Your task to perform on an android device: toggle show notifications on the lock screen Image 0: 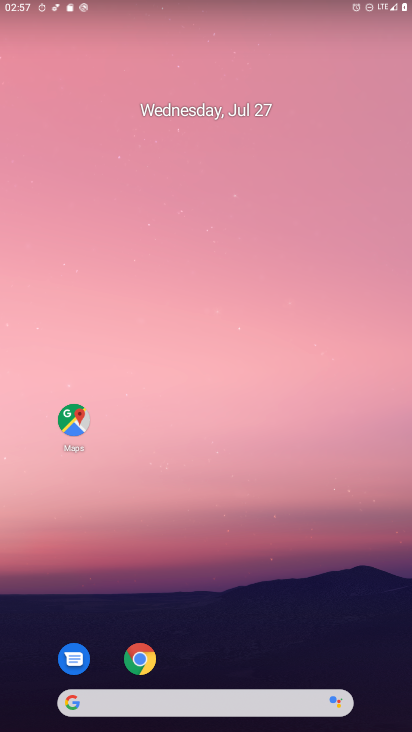
Step 0: click (280, 56)
Your task to perform on an android device: toggle show notifications on the lock screen Image 1: 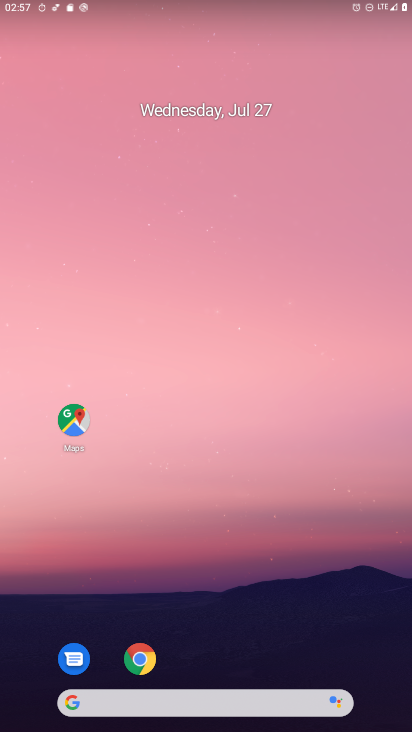
Step 1: drag from (325, 569) to (304, 33)
Your task to perform on an android device: toggle show notifications on the lock screen Image 2: 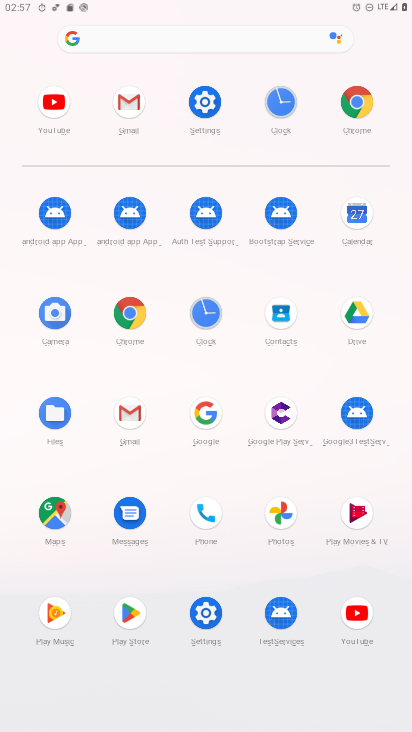
Step 2: click (204, 93)
Your task to perform on an android device: toggle show notifications on the lock screen Image 3: 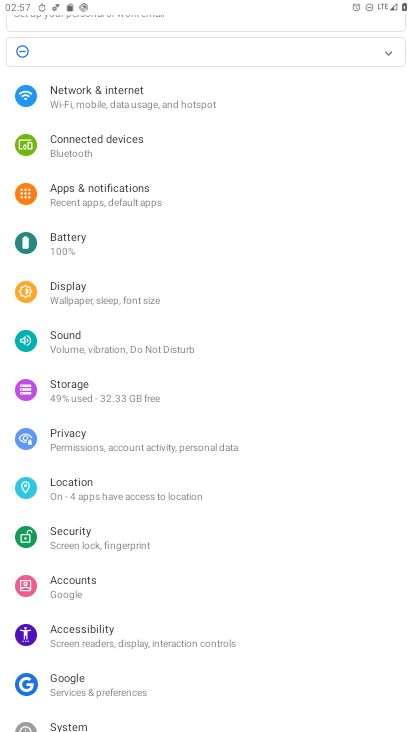
Step 3: click (130, 199)
Your task to perform on an android device: toggle show notifications on the lock screen Image 4: 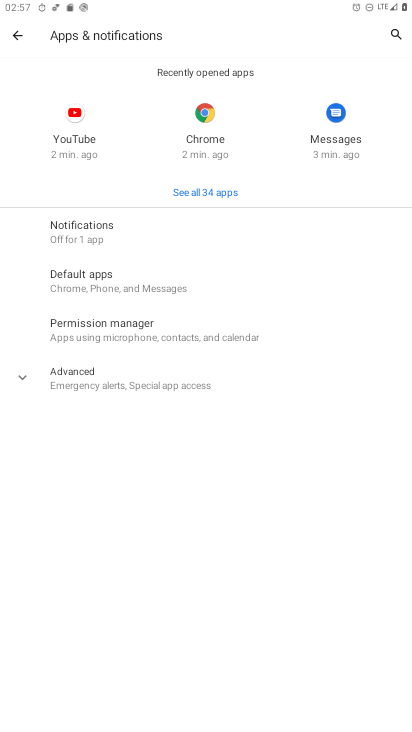
Step 4: click (98, 232)
Your task to perform on an android device: toggle show notifications on the lock screen Image 5: 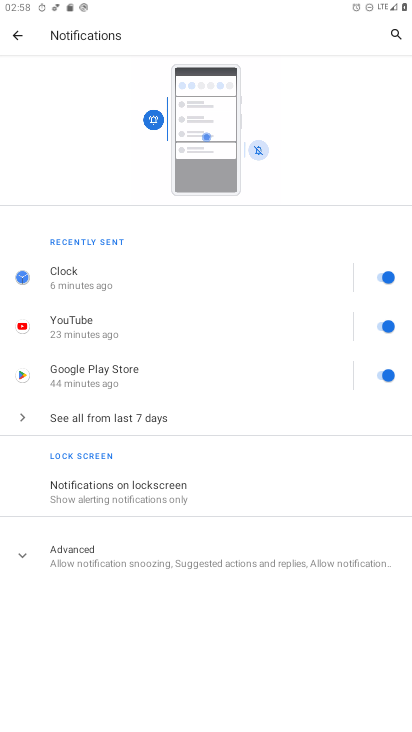
Step 5: click (149, 495)
Your task to perform on an android device: toggle show notifications on the lock screen Image 6: 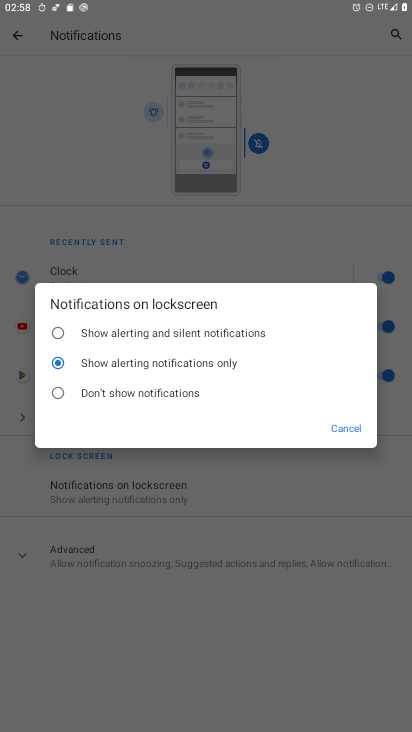
Step 6: click (155, 394)
Your task to perform on an android device: toggle show notifications on the lock screen Image 7: 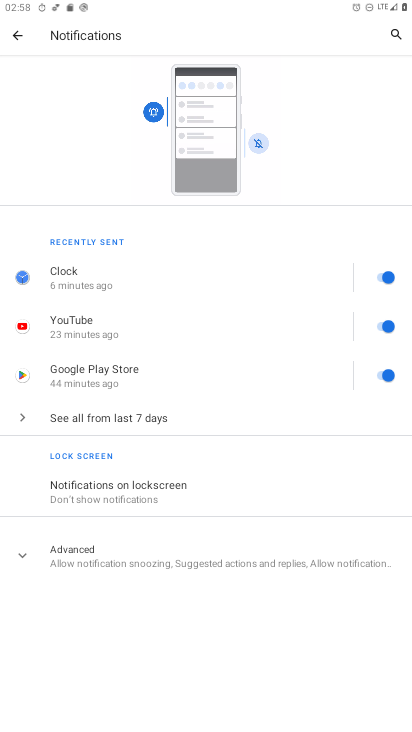
Step 7: task complete